Your task to perform on an android device: Open the stopwatch Image 0: 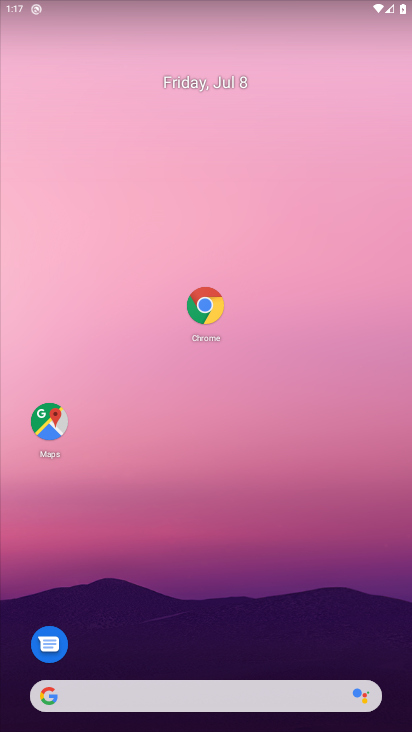
Step 0: drag from (254, 653) to (239, 243)
Your task to perform on an android device: Open the stopwatch Image 1: 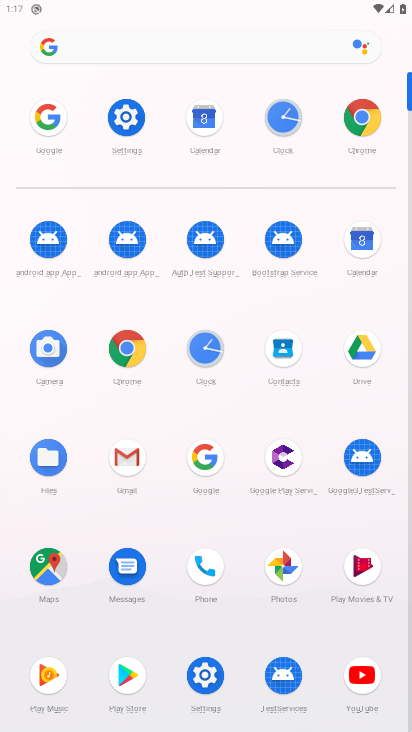
Step 1: click (290, 131)
Your task to perform on an android device: Open the stopwatch Image 2: 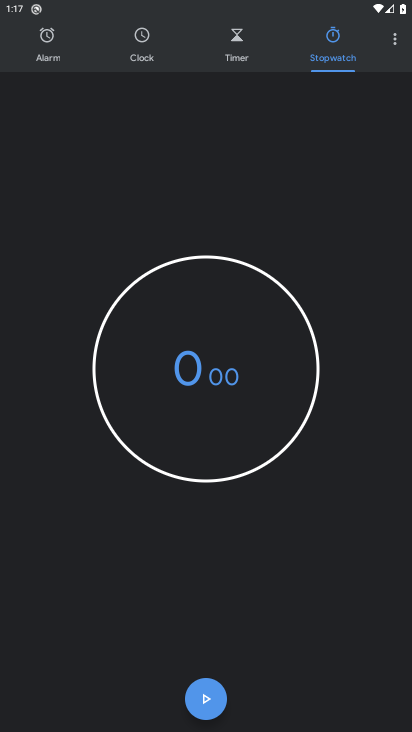
Step 2: task complete